Your task to perform on an android device: turn off javascript in the chrome app Image 0: 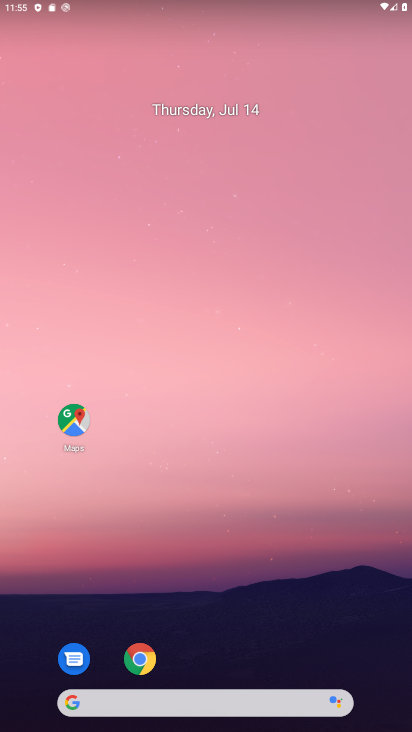
Step 0: click (154, 664)
Your task to perform on an android device: turn off javascript in the chrome app Image 1: 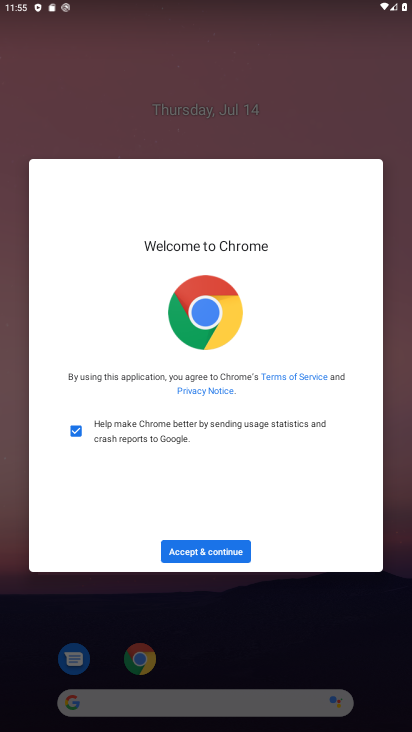
Step 1: click (188, 546)
Your task to perform on an android device: turn off javascript in the chrome app Image 2: 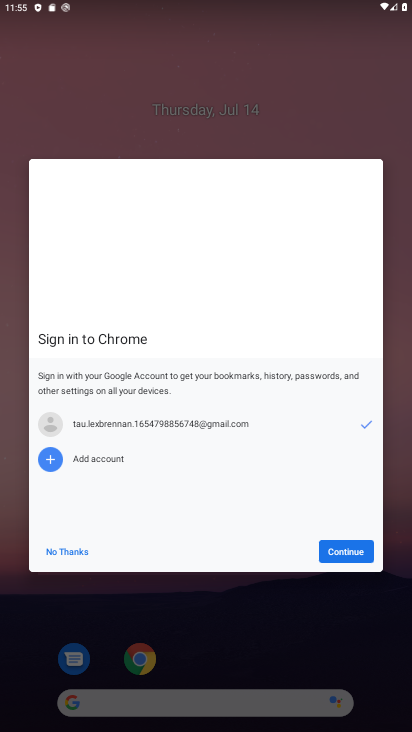
Step 2: click (358, 547)
Your task to perform on an android device: turn off javascript in the chrome app Image 3: 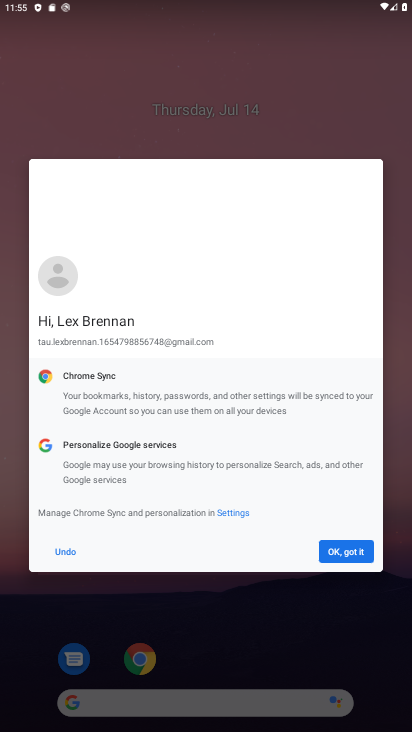
Step 3: click (336, 545)
Your task to perform on an android device: turn off javascript in the chrome app Image 4: 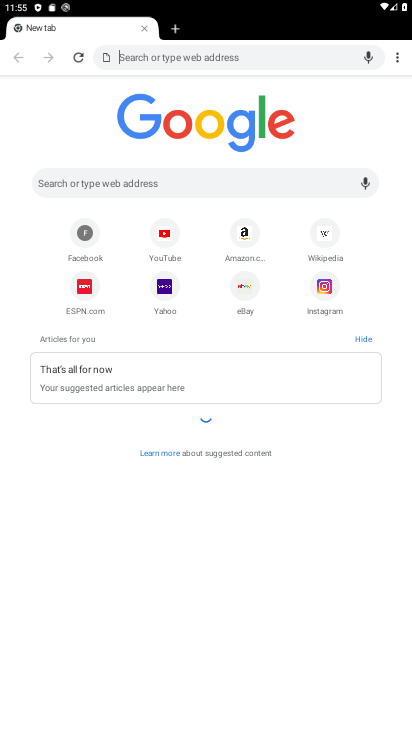
Step 4: click (399, 53)
Your task to perform on an android device: turn off javascript in the chrome app Image 5: 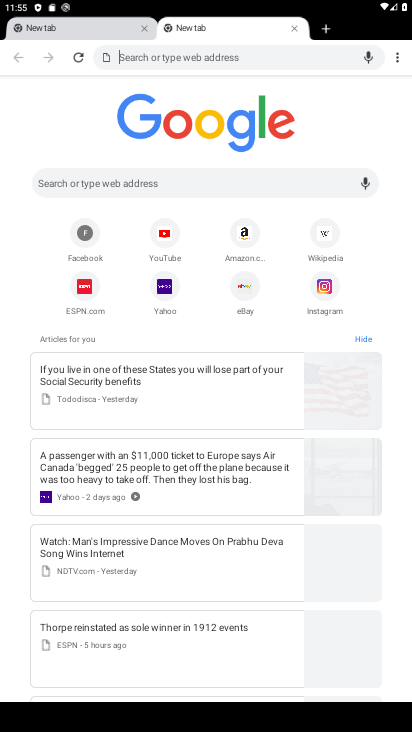
Step 5: click (396, 58)
Your task to perform on an android device: turn off javascript in the chrome app Image 6: 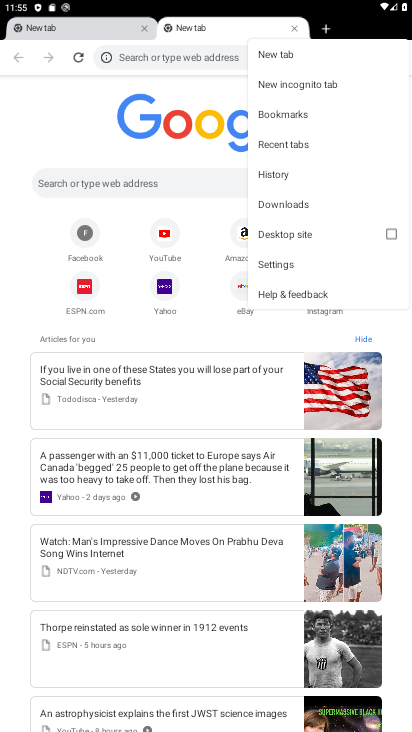
Step 6: click (283, 265)
Your task to perform on an android device: turn off javascript in the chrome app Image 7: 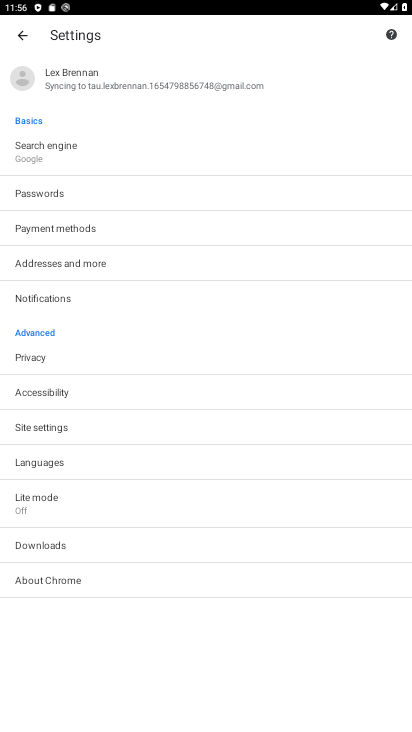
Step 7: click (38, 421)
Your task to perform on an android device: turn off javascript in the chrome app Image 8: 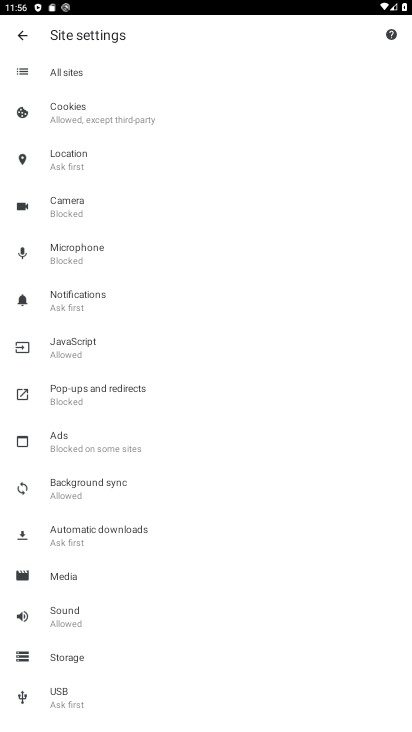
Step 8: click (67, 357)
Your task to perform on an android device: turn off javascript in the chrome app Image 9: 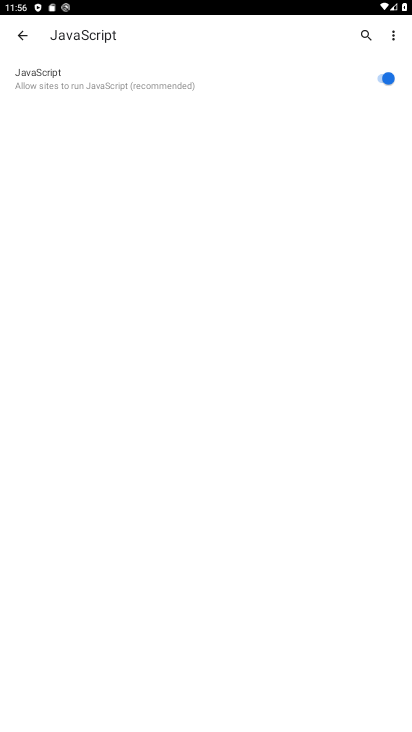
Step 9: click (381, 84)
Your task to perform on an android device: turn off javascript in the chrome app Image 10: 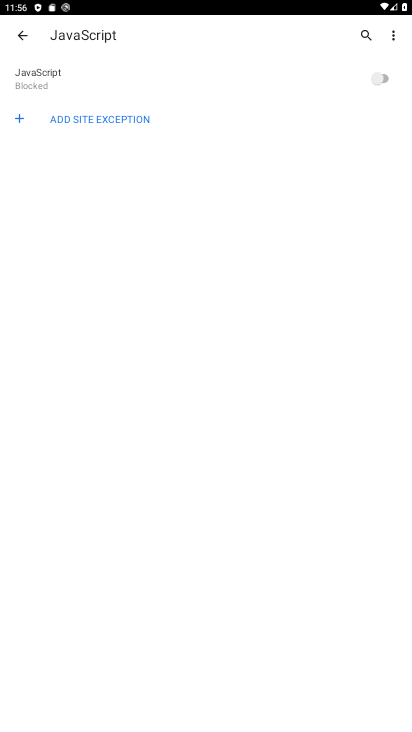
Step 10: task complete